Your task to perform on an android device: delete browsing data in the chrome app Image 0: 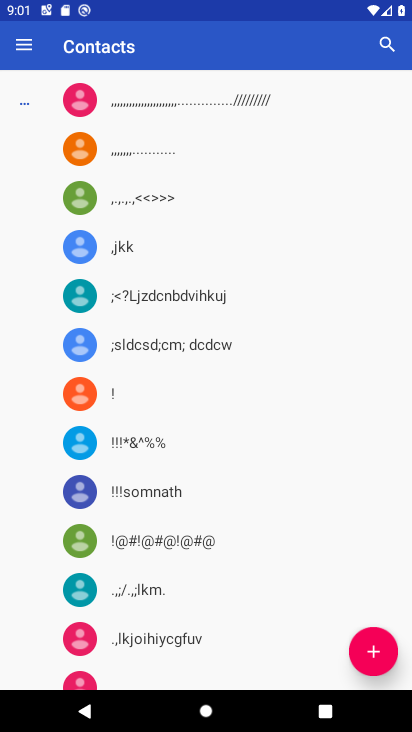
Step 0: press home button
Your task to perform on an android device: delete browsing data in the chrome app Image 1: 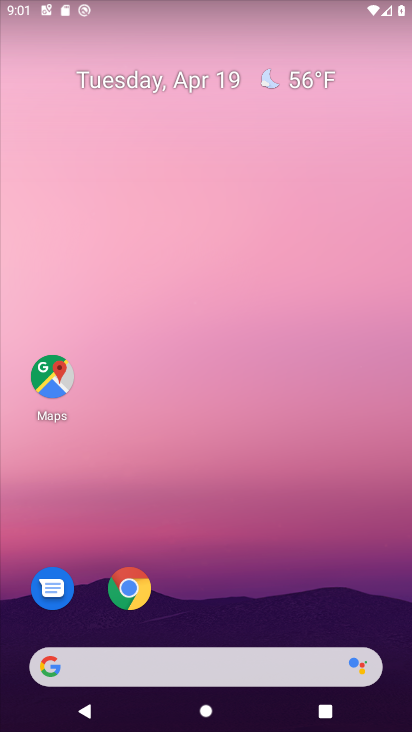
Step 1: click (126, 582)
Your task to perform on an android device: delete browsing data in the chrome app Image 2: 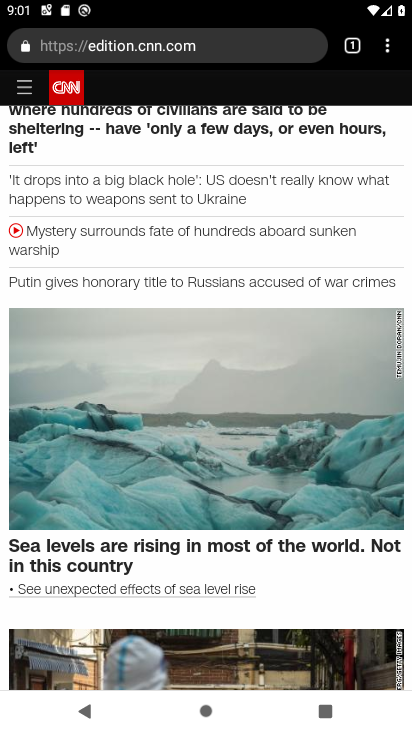
Step 2: click (383, 41)
Your task to perform on an android device: delete browsing data in the chrome app Image 3: 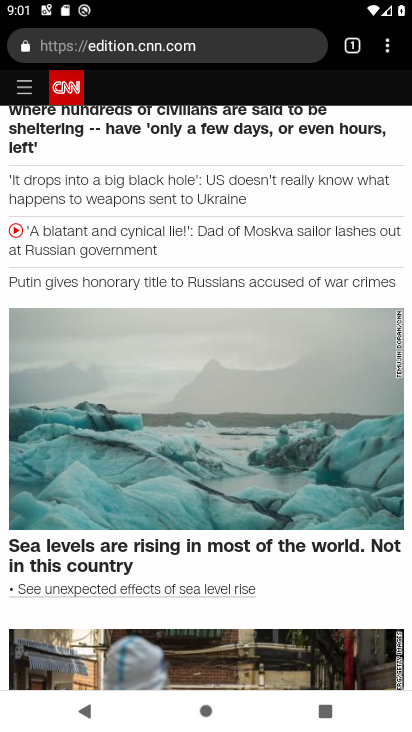
Step 3: click (389, 44)
Your task to perform on an android device: delete browsing data in the chrome app Image 4: 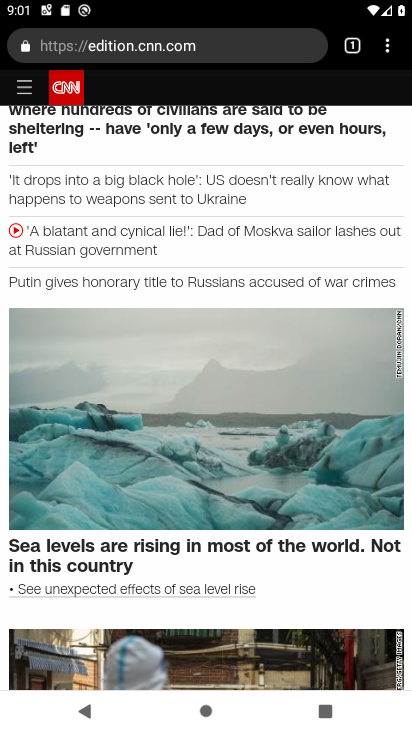
Step 4: click (388, 44)
Your task to perform on an android device: delete browsing data in the chrome app Image 5: 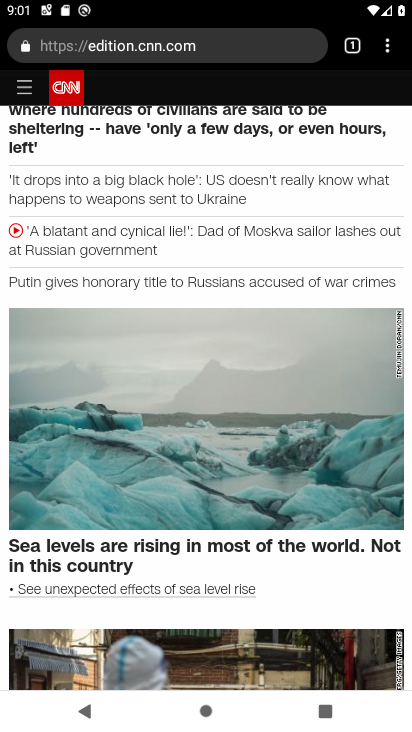
Step 5: click (390, 46)
Your task to perform on an android device: delete browsing data in the chrome app Image 6: 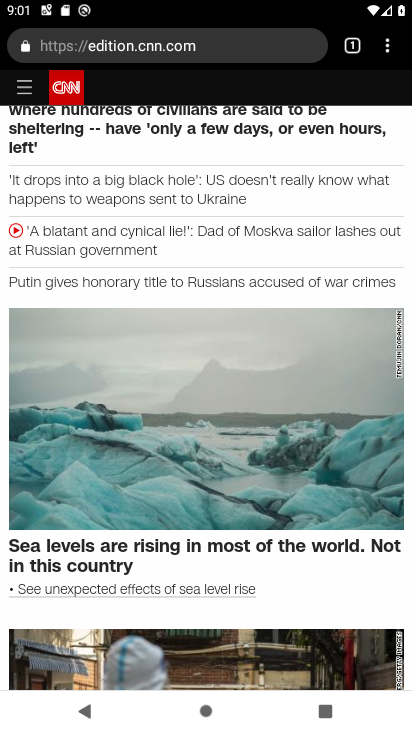
Step 6: click (386, 44)
Your task to perform on an android device: delete browsing data in the chrome app Image 7: 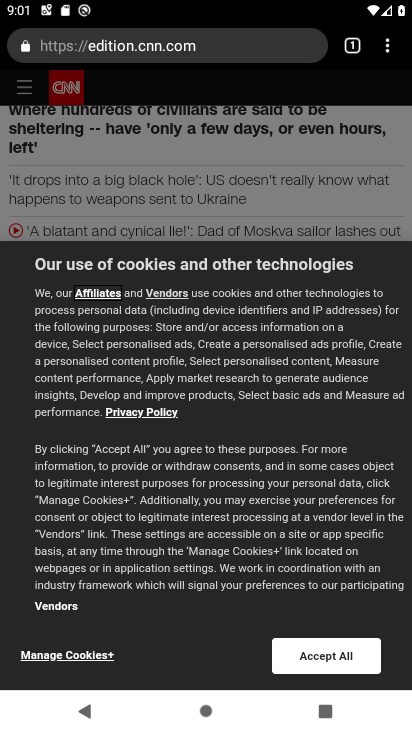
Step 7: click (326, 646)
Your task to perform on an android device: delete browsing data in the chrome app Image 8: 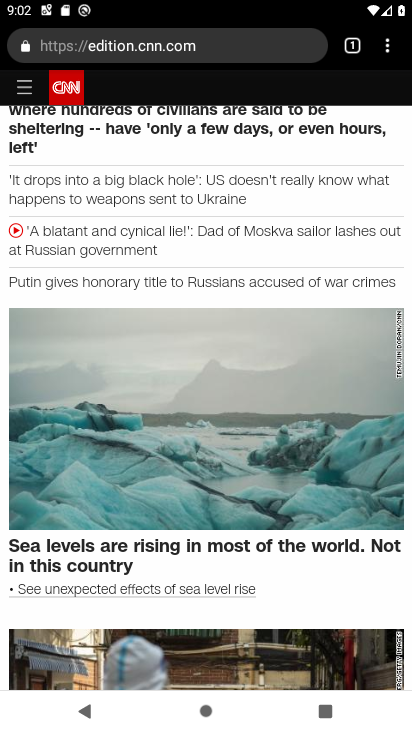
Step 8: click (388, 41)
Your task to perform on an android device: delete browsing data in the chrome app Image 9: 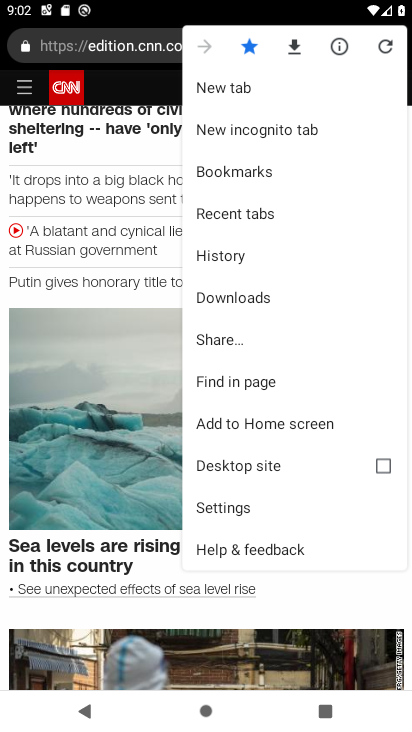
Step 9: click (229, 258)
Your task to perform on an android device: delete browsing data in the chrome app Image 10: 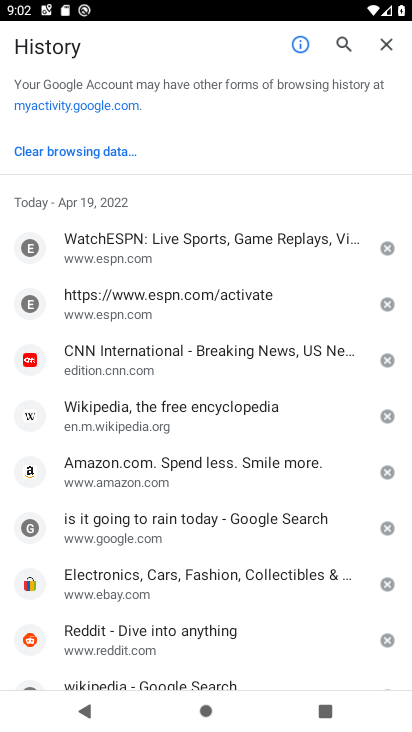
Step 10: click (81, 149)
Your task to perform on an android device: delete browsing data in the chrome app Image 11: 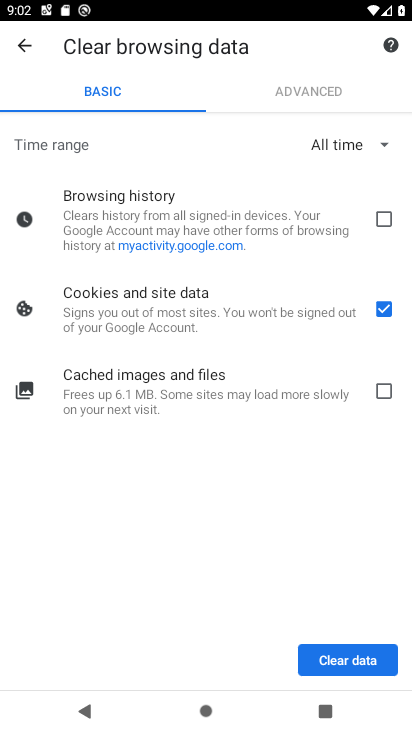
Step 11: click (381, 212)
Your task to perform on an android device: delete browsing data in the chrome app Image 12: 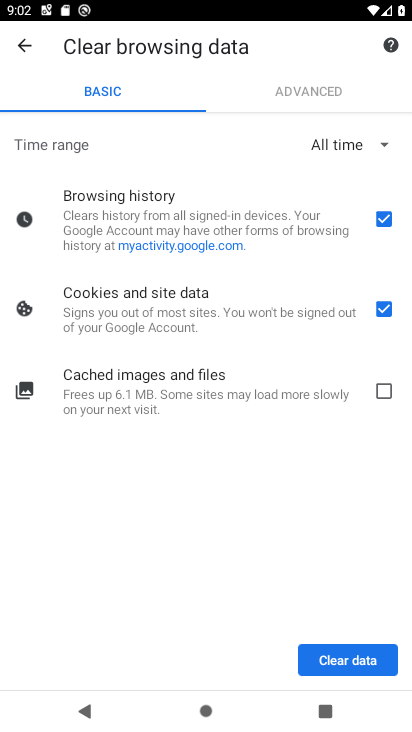
Step 12: click (387, 383)
Your task to perform on an android device: delete browsing data in the chrome app Image 13: 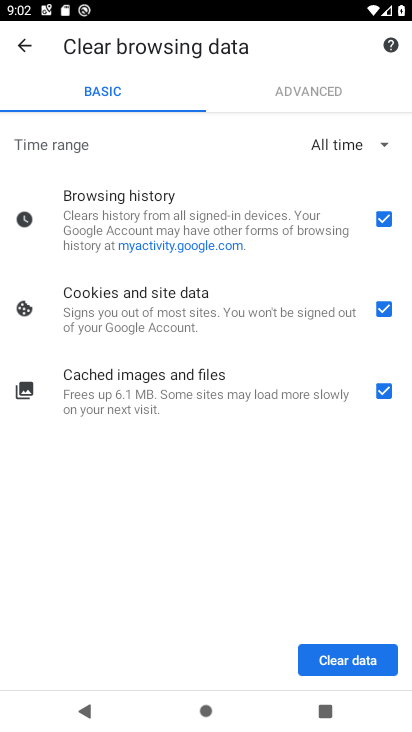
Step 13: click (343, 660)
Your task to perform on an android device: delete browsing data in the chrome app Image 14: 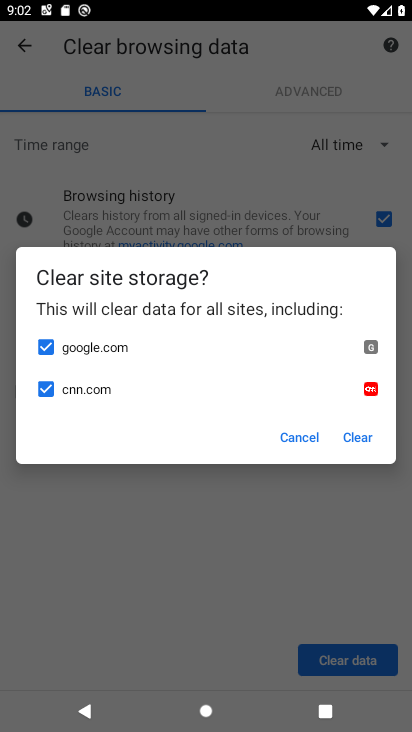
Step 14: click (353, 431)
Your task to perform on an android device: delete browsing data in the chrome app Image 15: 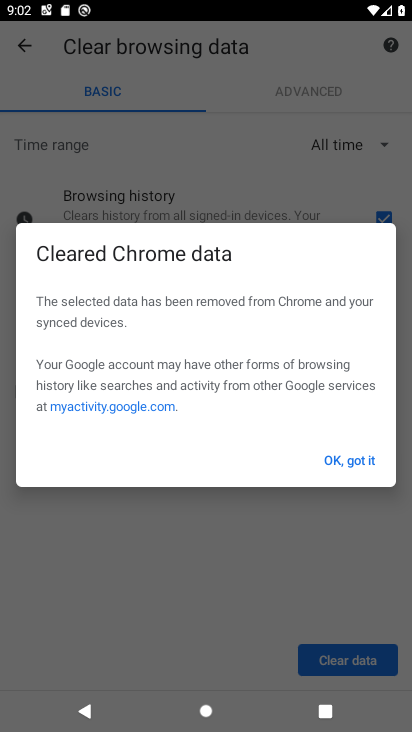
Step 15: click (347, 462)
Your task to perform on an android device: delete browsing data in the chrome app Image 16: 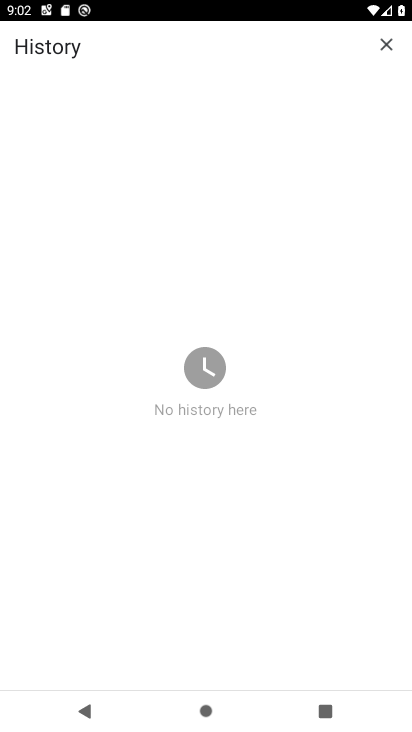
Step 16: task complete